Your task to perform on an android device: show emergency info Image 0: 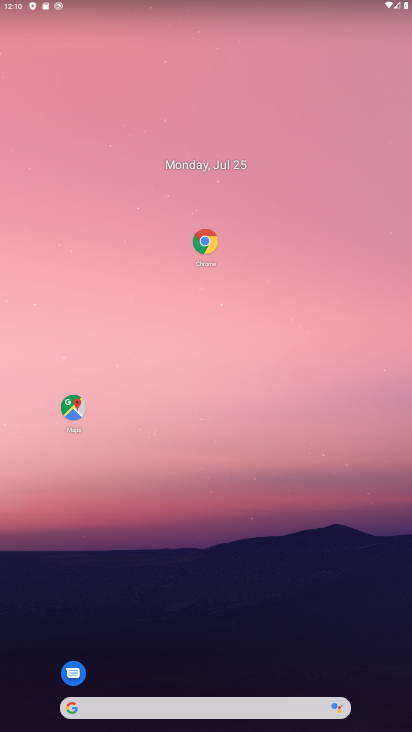
Step 0: drag from (178, 714) to (391, 8)
Your task to perform on an android device: show emergency info Image 1: 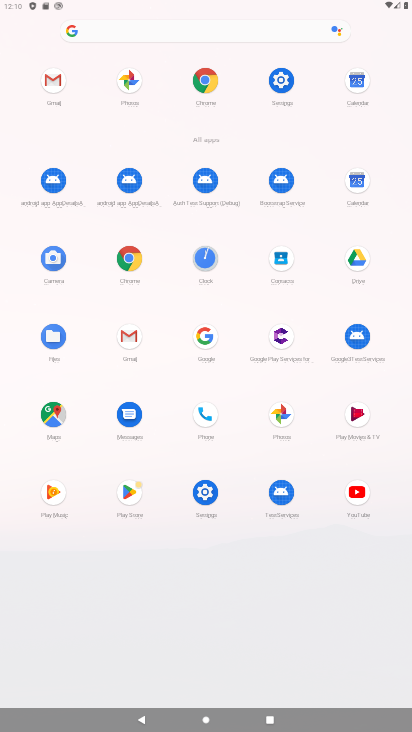
Step 1: click (287, 78)
Your task to perform on an android device: show emergency info Image 2: 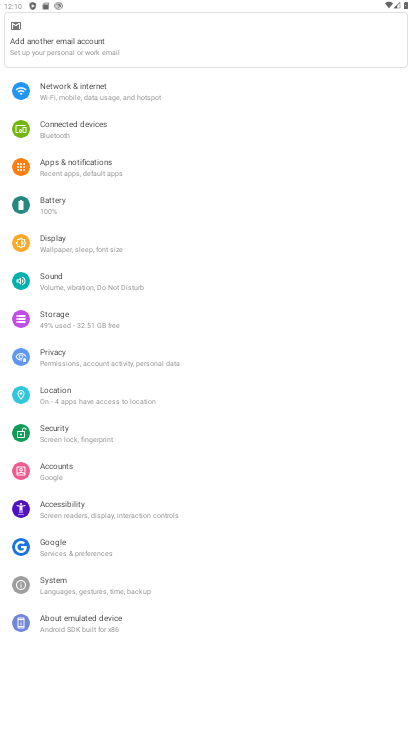
Step 2: click (100, 627)
Your task to perform on an android device: show emergency info Image 3: 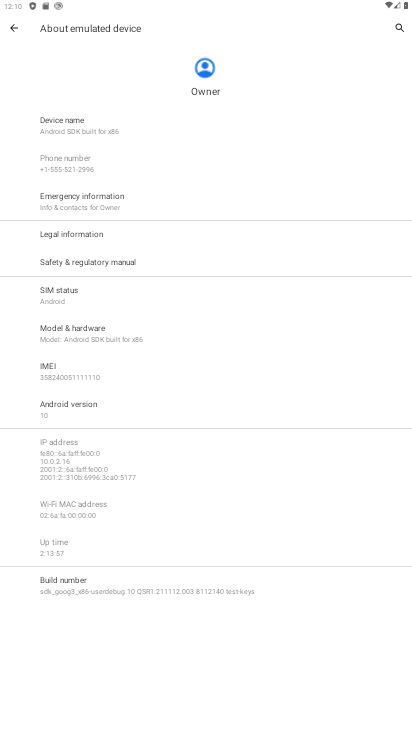
Step 3: click (131, 211)
Your task to perform on an android device: show emergency info Image 4: 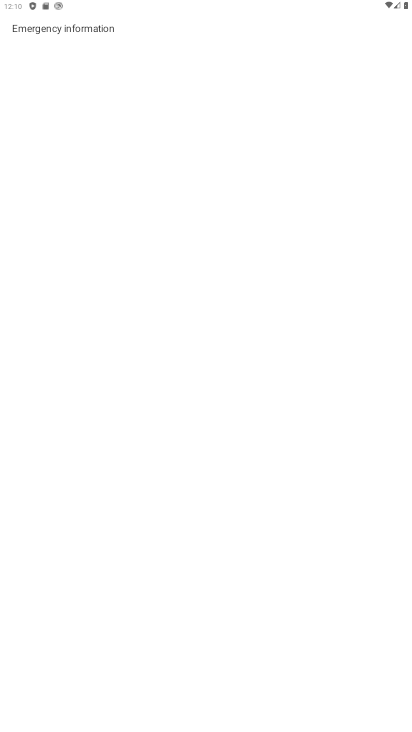
Step 4: task complete